Your task to perform on an android device: toggle priority inbox in the gmail app Image 0: 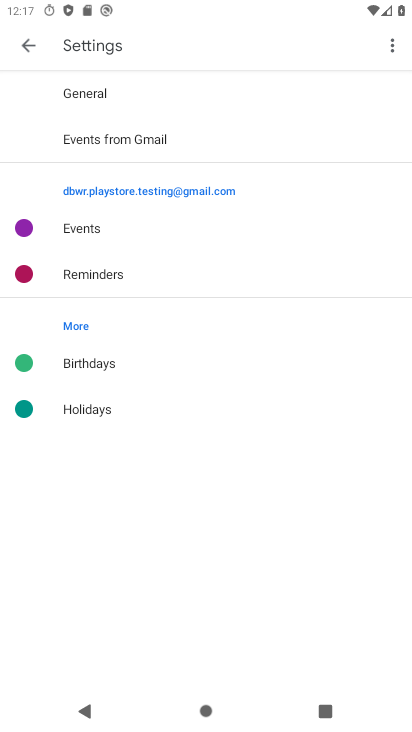
Step 0: press home button
Your task to perform on an android device: toggle priority inbox in the gmail app Image 1: 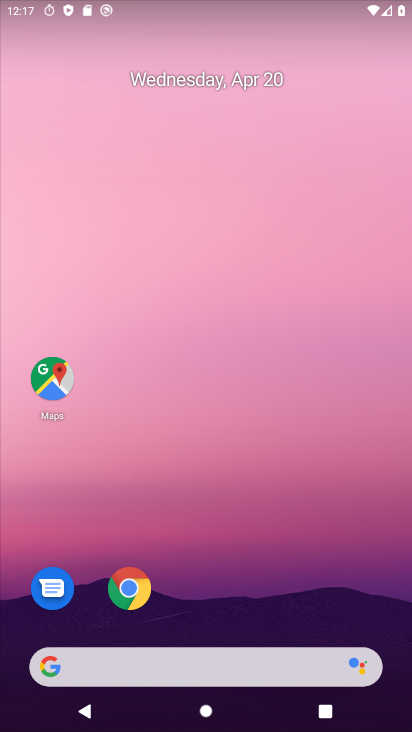
Step 1: drag from (222, 631) to (171, 87)
Your task to perform on an android device: toggle priority inbox in the gmail app Image 2: 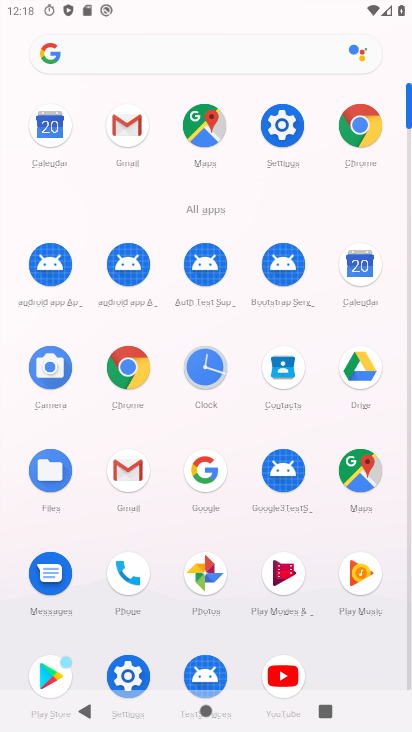
Step 2: click (129, 477)
Your task to perform on an android device: toggle priority inbox in the gmail app Image 3: 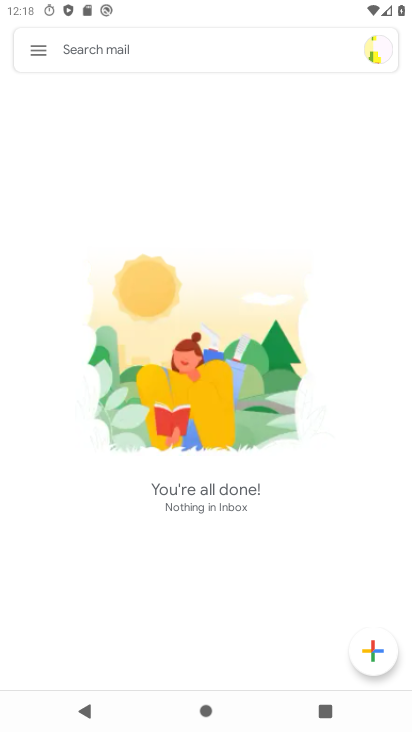
Step 3: click (37, 53)
Your task to perform on an android device: toggle priority inbox in the gmail app Image 4: 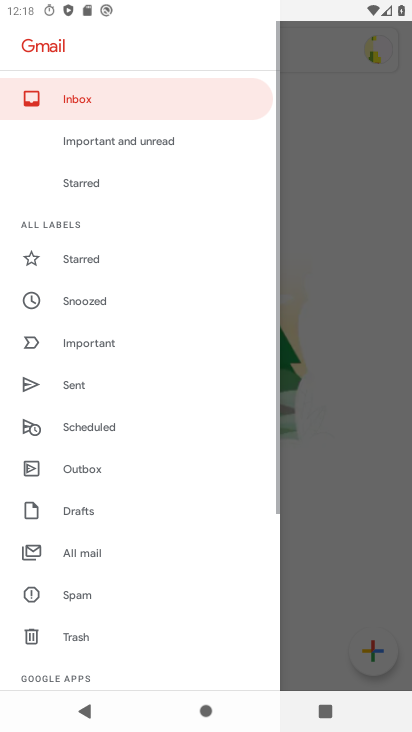
Step 4: drag from (59, 576) to (24, 103)
Your task to perform on an android device: toggle priority inbox in the gmail app Image 5: 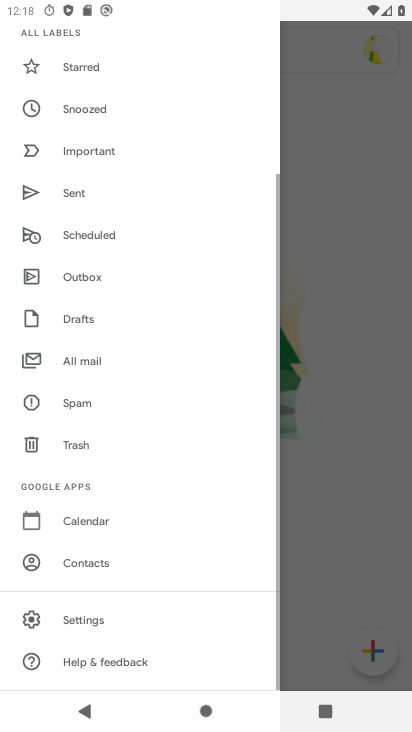
Step 5: click (81, 614)
Your task to perform on an android device: toggle priority inbox in the gmail app Image 6: 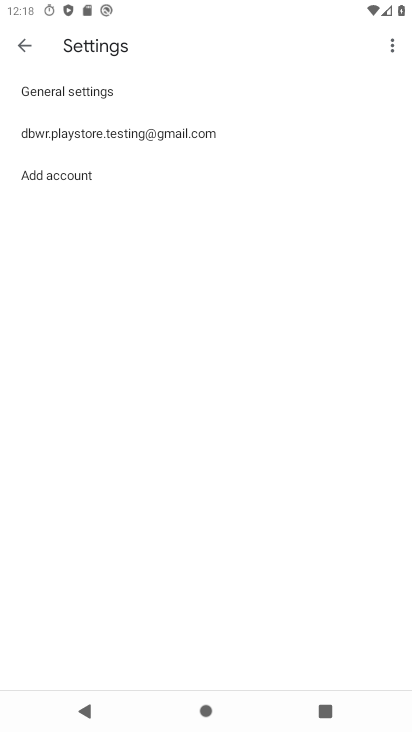
Step 6: click (55, 131)
Your task to perform on an android device: toggle priority inbox in the gmail app Image 7: 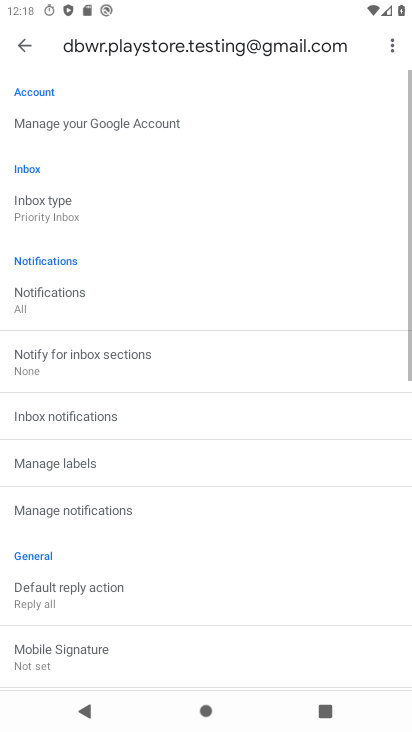
Step 7: drag from (92, 590) to (22, 95)
Your task to perform on an android device: toggle priority inbox in the gmail app Image 8: 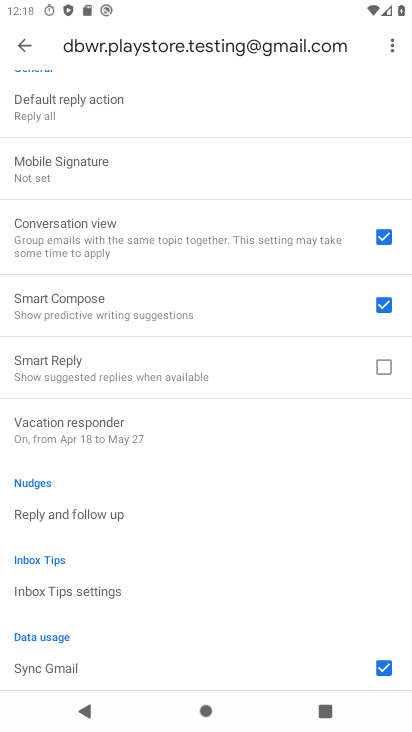
Step 8: drag from (58, 155) to (90, 669)
Your task to perform on an android device: toggle priority inbox in the gmail app Image 9: 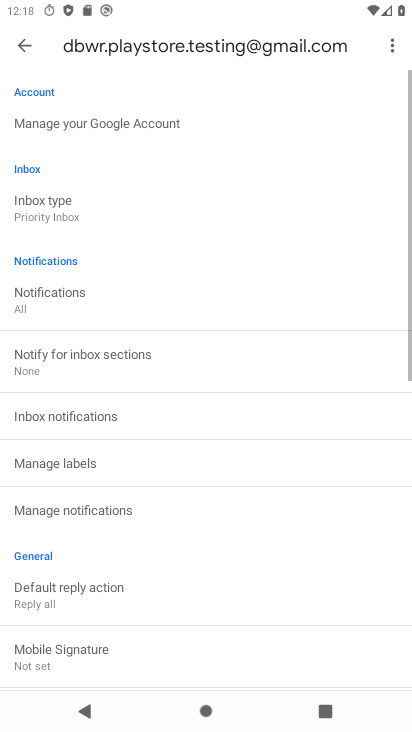
Step 9: click (28, 211)
Your task to perform on an android device: toggle priority inbox in the gmail app Image 10: 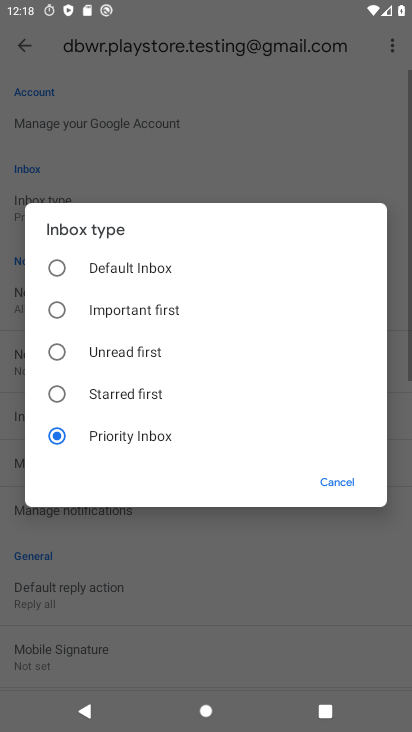
Step 10: click (85, 389)
Your task to perform on an android device: toggle priority inbox in the gmail app Image 11: 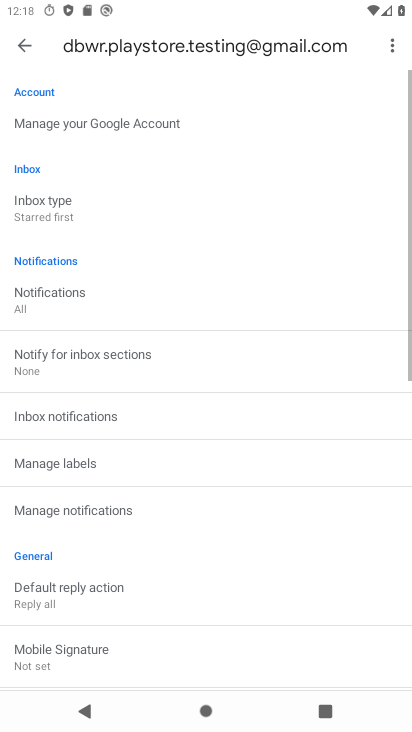
Step 11: task complete